Your task to perform on an android device: Go to Wikipedia Image 0: 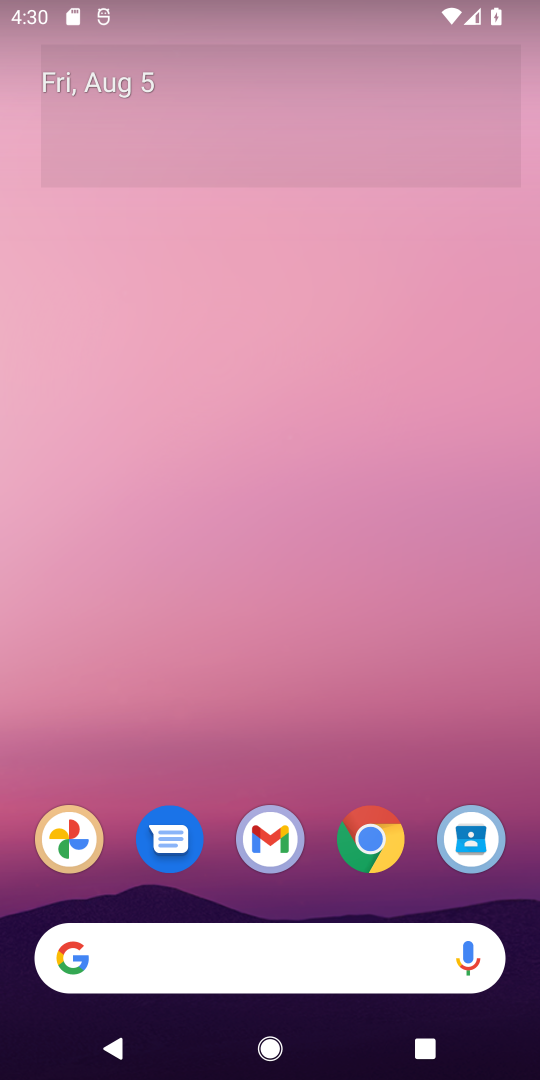
Step 0: click (359, 866)
Your task to perform on an android device: Go to Wikipedia Image 1: 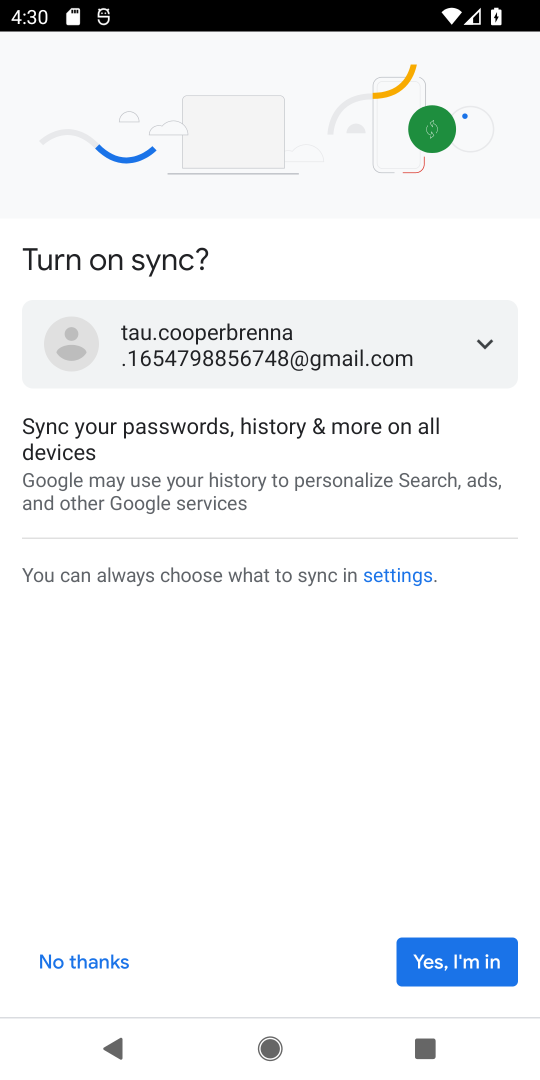
Step 1: click (483, 975)
Your task to perform on an android device: Go to Wikipedia Image 2: 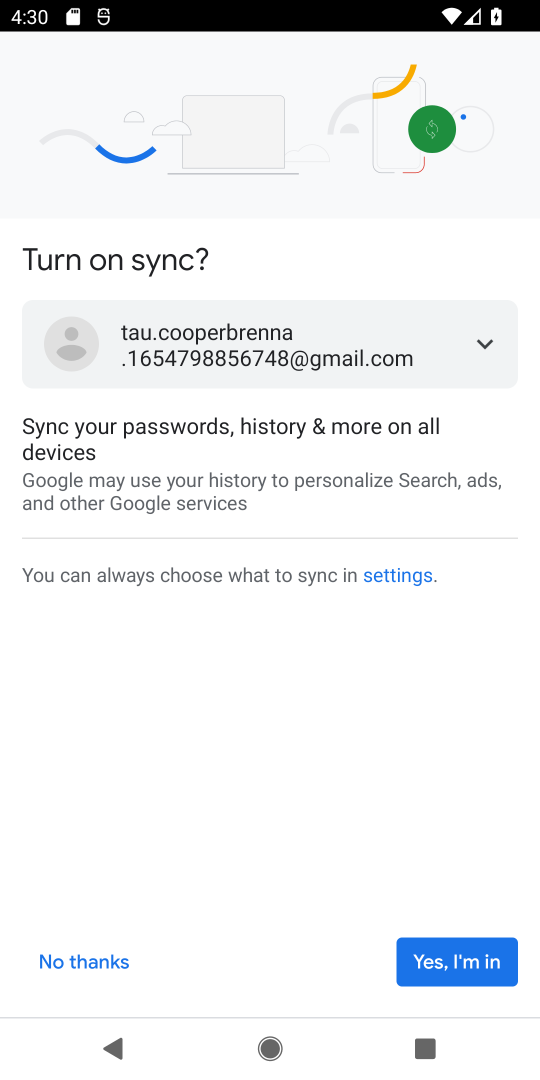
Step 2: click (483, 975)
Your task to perform on an android device: Go to Wikipedia Image 3: 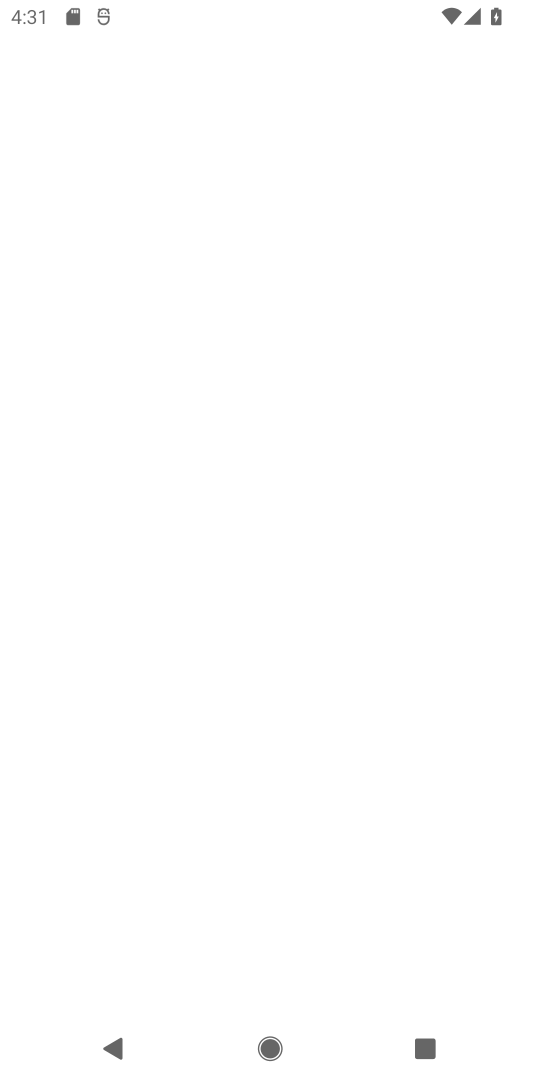
Step 3: task complete